Your task to perform on an android device: turn on priority inbox in the gmail app Image 0: 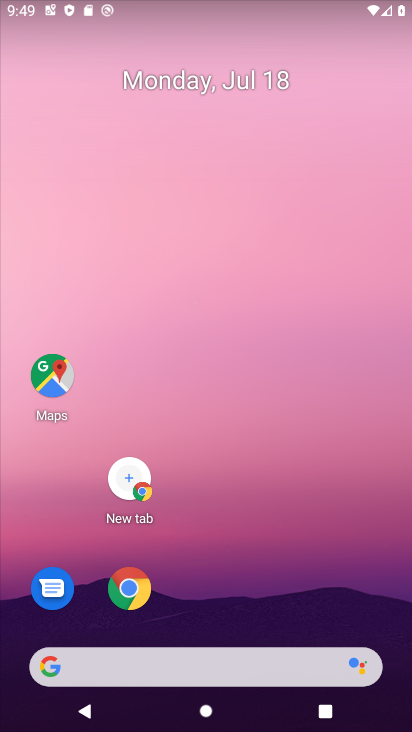
Step 0: drag from (213, 599) to (382, 16)
Your task to perform on an android device: turn on priority inbox in the gmail app Image 1: 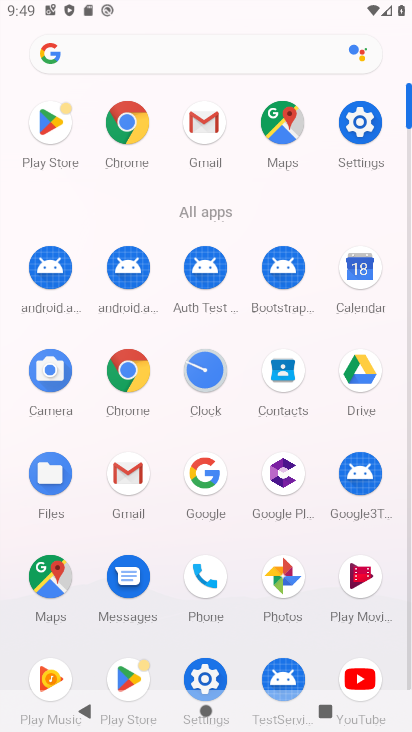
Step 1: click (192, 109)
Your task to perform on an android device: turn on priority inbox in the gmail app Image 2: 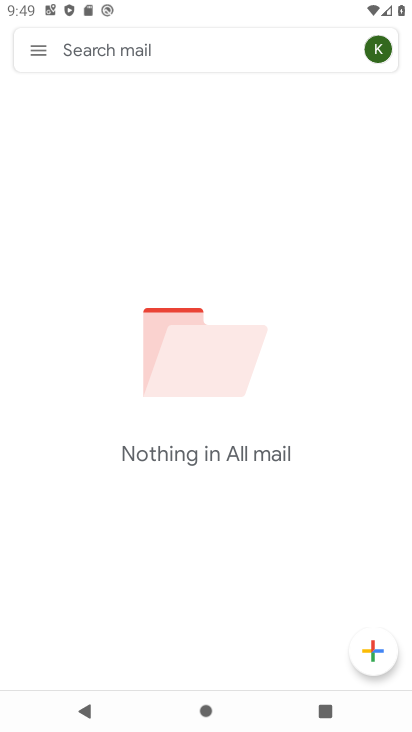
Step 2: click (46, 47)
Your task to perform on an android device: turn on priority inbox in the gmail app Image 3: 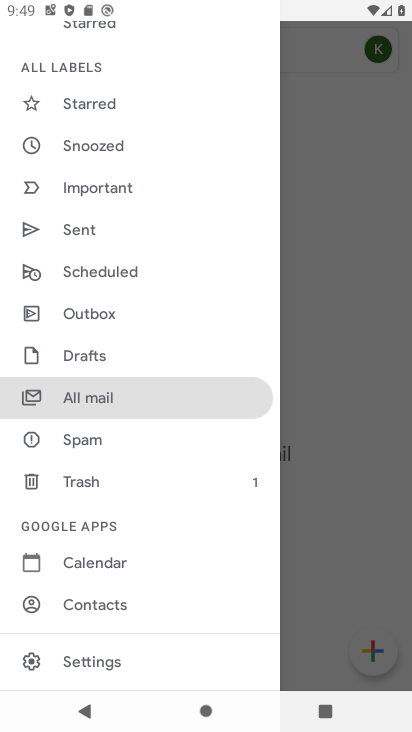
Step 3: click (119, 677)
Your task to perform on an android device: turn on priority inbox in the gmail app Image 4: 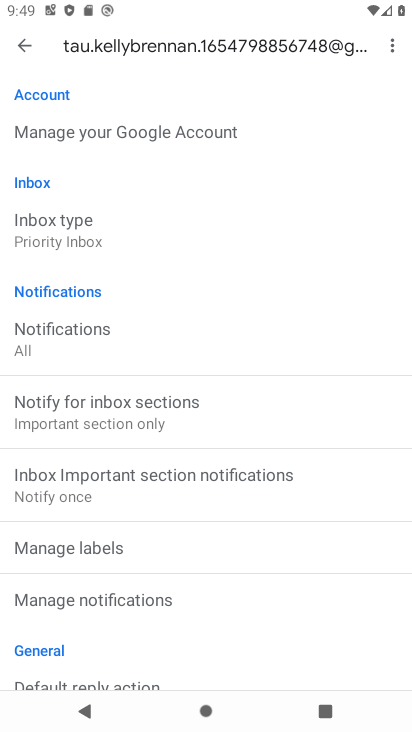
Step 4: click (74, 238)
Your task to perform on an android device: turn on priority inbox in the gmail app Image 5: 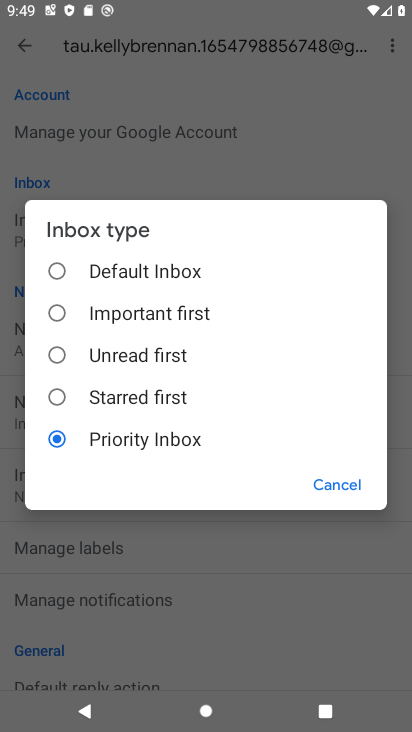
Step 5: task complete